Your task to perform on an android device: delete location history Image 0: 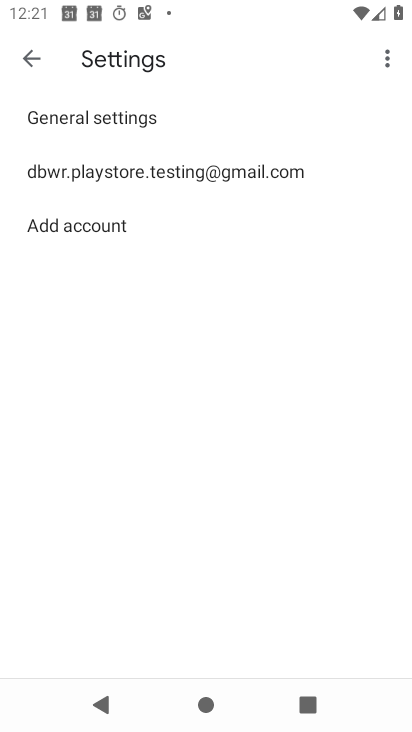
Step 0: press home button
Your task to perform on an android device: delete location history Image 1: 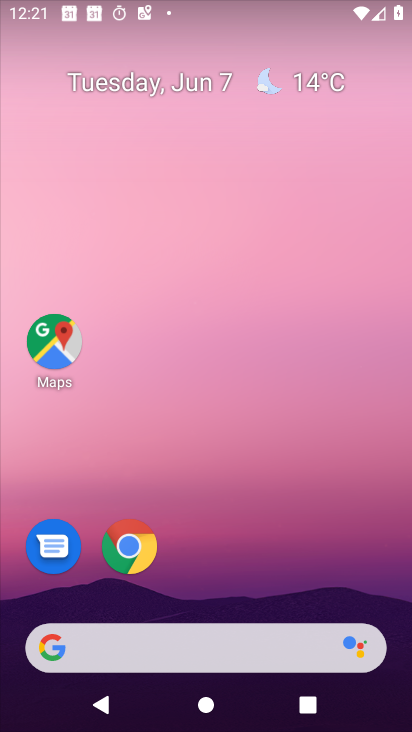
Step 1: drag from (255, 605) to (253, 450)
Your task to perform on an android device: delete location history Image 2: 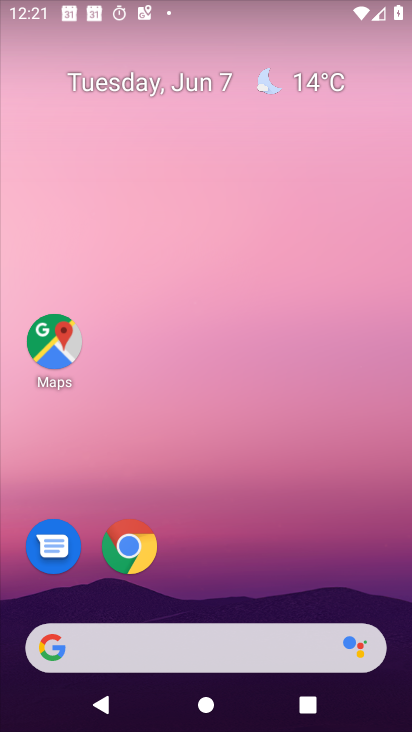
Step 2: drag from (205, 617) to (372, 2)
Your task to perform on an android device: delete location history Image 3: 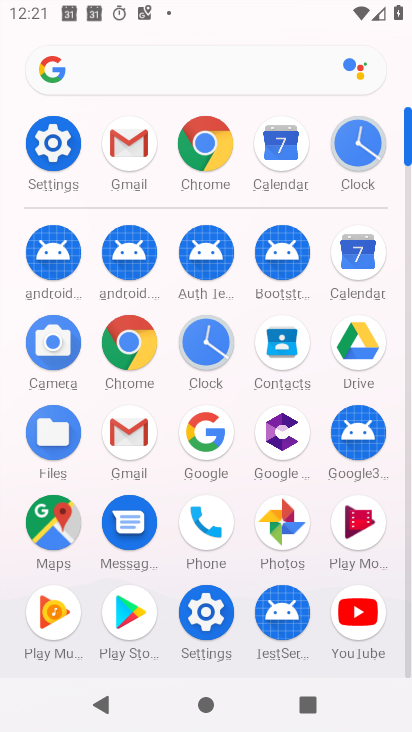
Step 3: click (195, 607)
Your task to perform on an android device: delete location history Image 4: 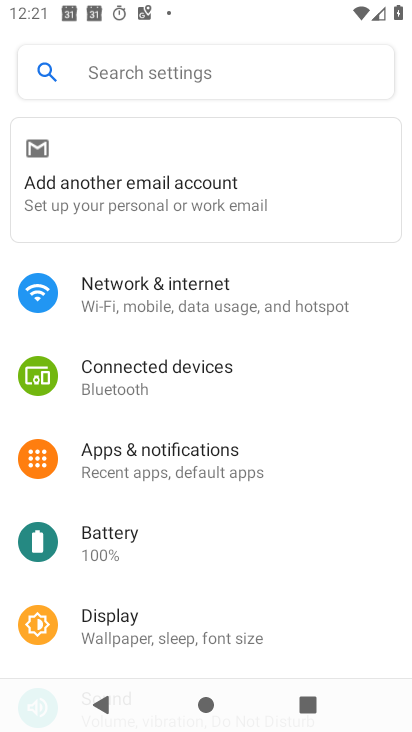
Step 4: press home button
Your task to perform on an android device: delete location history Image 5: 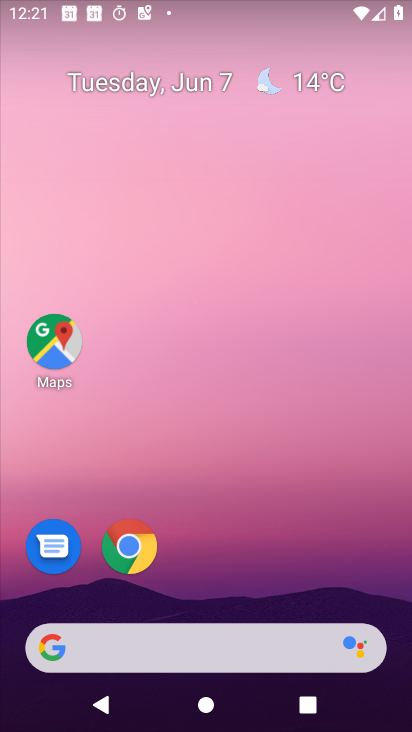
Step 5: drag from (212, 596) to (199, 561)
Your task to perform on an android device: delete location history Image 6: 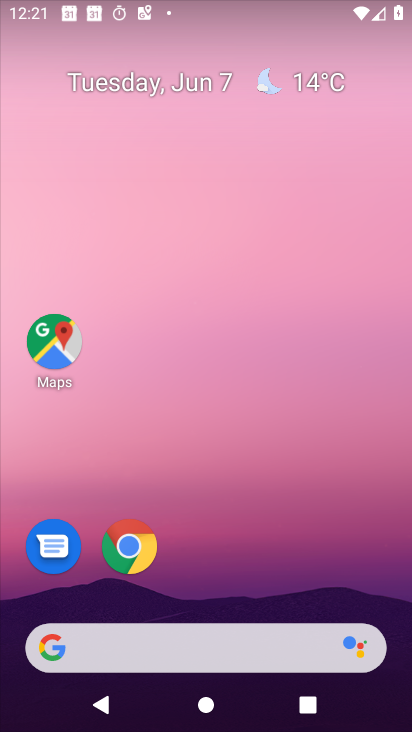
Step 6: click (49, 329)
Your task to perform on an android device: delete location history Image 7: 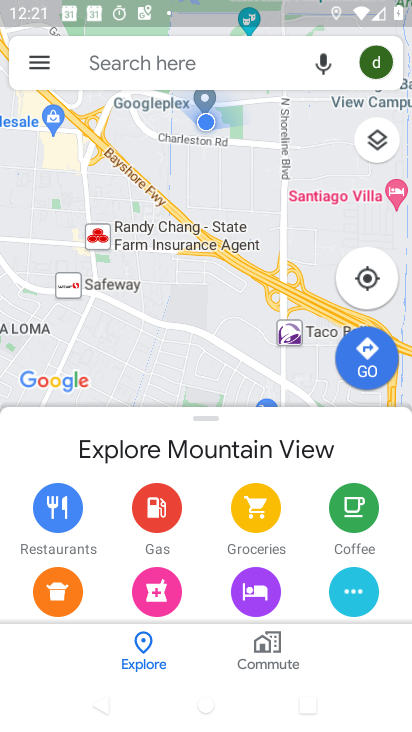
Step 7: click (27, 61)
Your task to perform on an android device: delete location history Image 8: 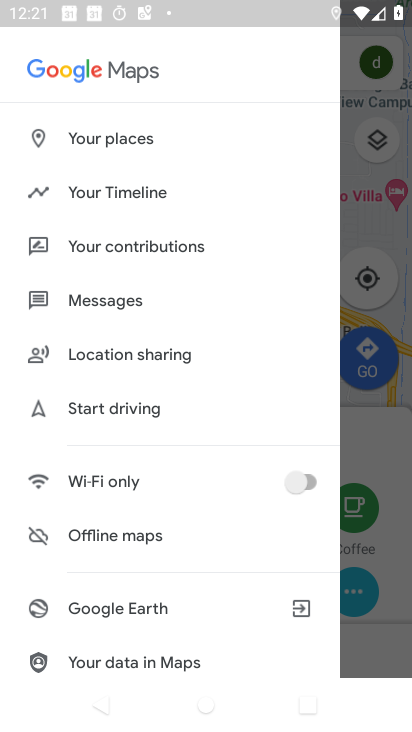
Step 8: click (106, 195)
Your task to perform on an android device: delete location history Image 9: 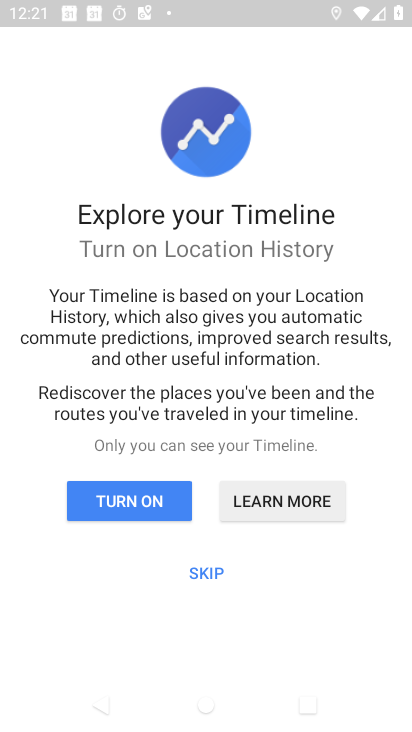
Step 9: click (204, 571)
Your task to perform on an android device: delete location history Image 10: 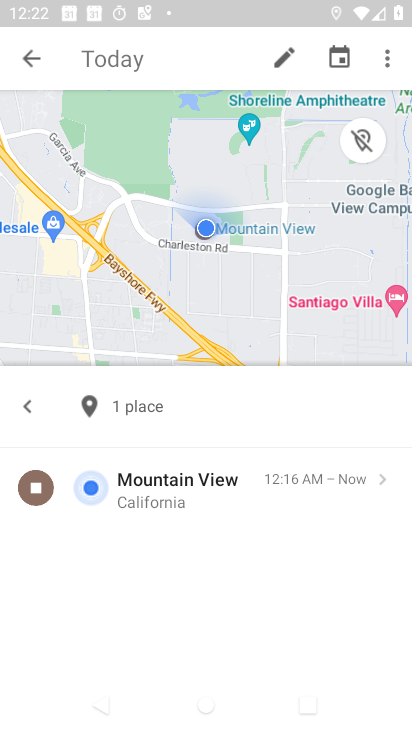
Step 10: click (382, 54)
Your task to perform on an android device: delete location history Image 11: 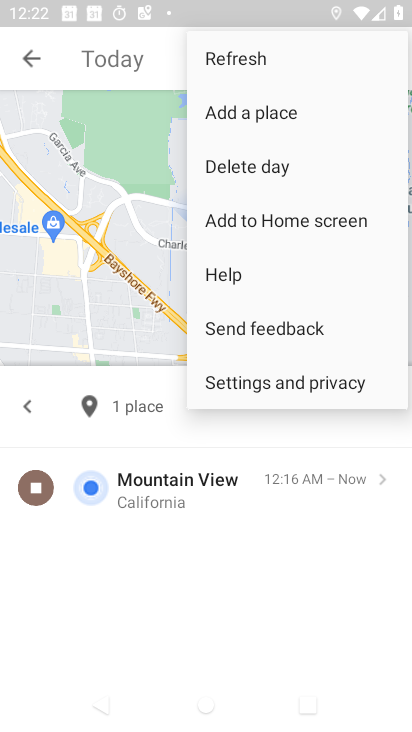
Step 11: click (278, 388)
Your task to perform on an android device: delete location history Image 12: 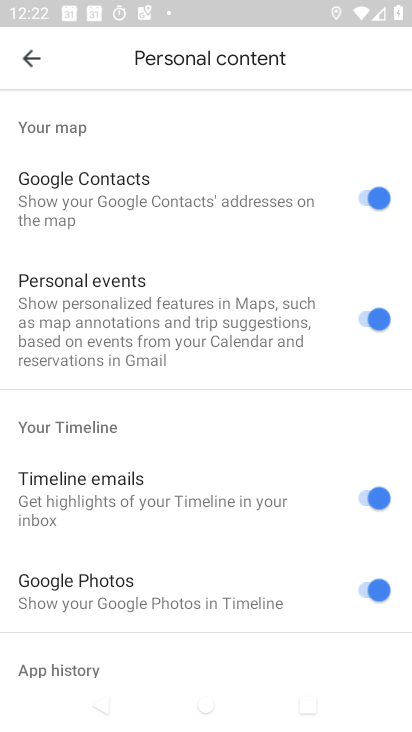
Step 12: drag from (193, 525) to (214, 429)
Your task to perform on an android device: delete location history Image 13: 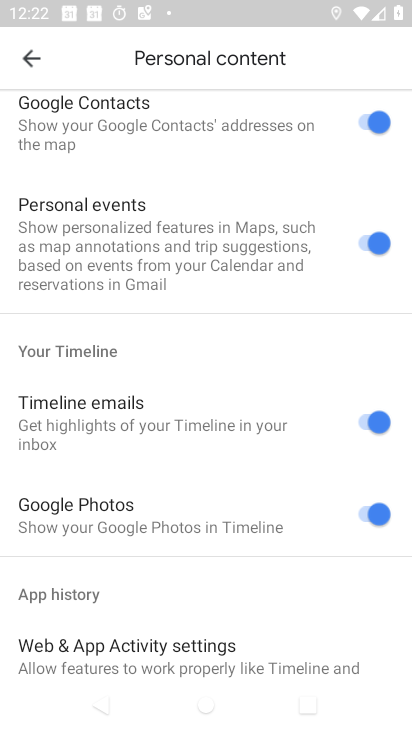
Step 13: drag from (218, 608) to (272, 323)
Your task to perform on an android device: delete location history Image 14: 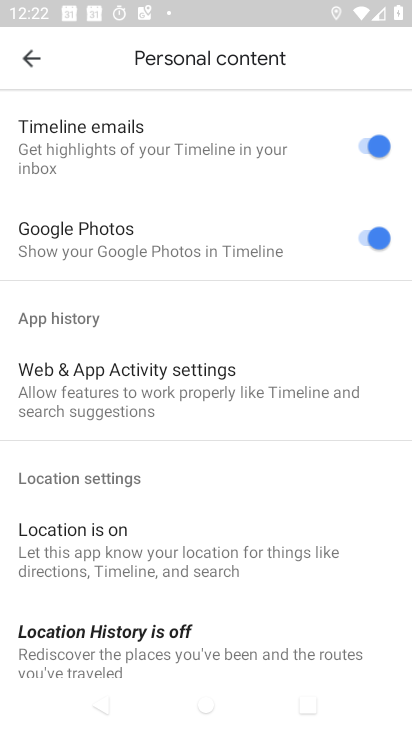
Step 14: drag from (178, 573) to (318, 127)
Your task to perform on an android device: delete location history Image 15: 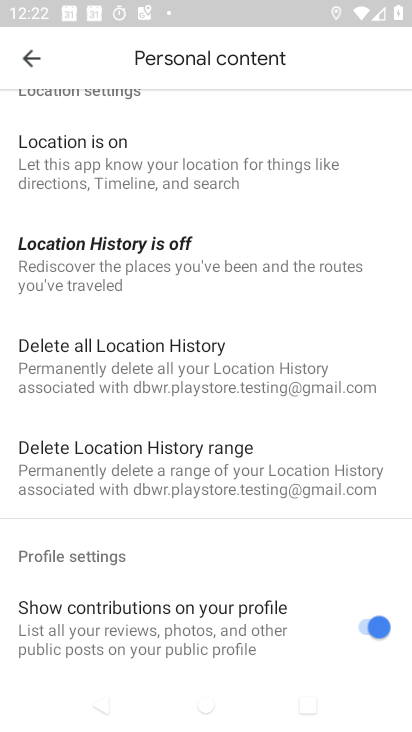
Step 15: click (111, 352)
Your task to perform on an android device: delete location history Image 16: 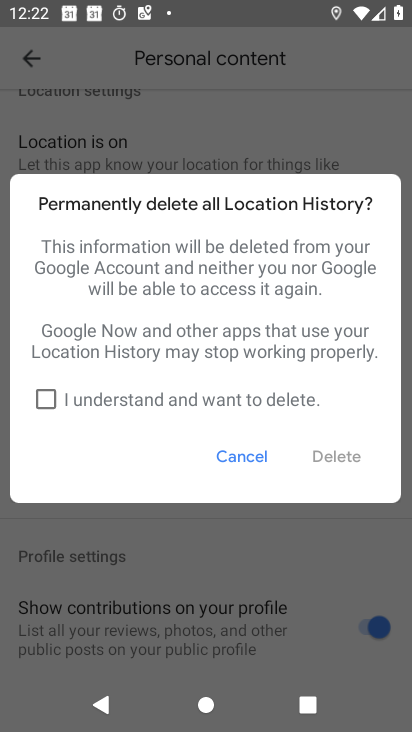
Step 16: click (58, 396)
Your task to perform on an android device: delete location history Image 17: 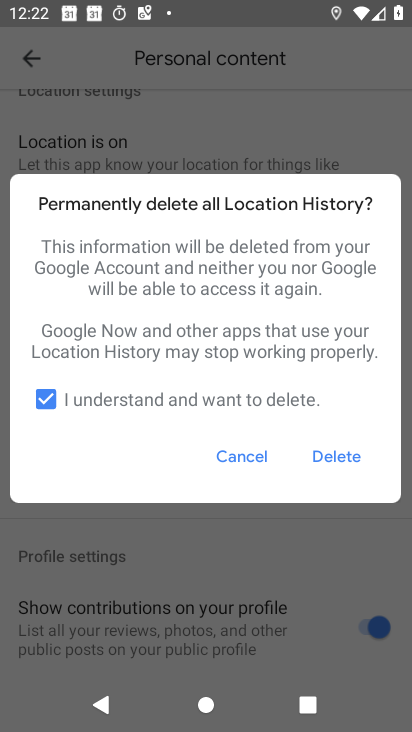
Step 17: click (328, 455)
Your task to perform on an android device: delete location history Image 18: 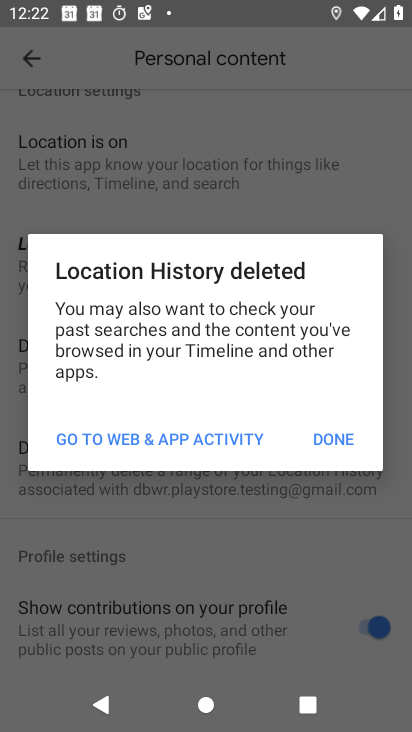
Step 18: click (332, 429)
Your task to perform on an android device: delete location history Image 19: 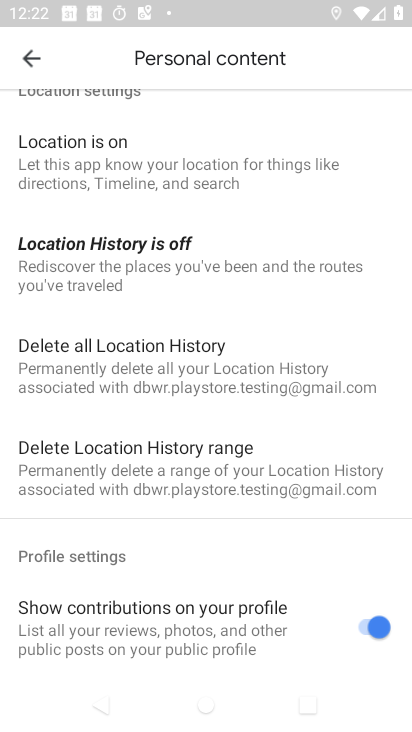
Step 19: task complete